Your task to perform on an android device: Open the Play Movies app and select the watchlist tab. Image 0: 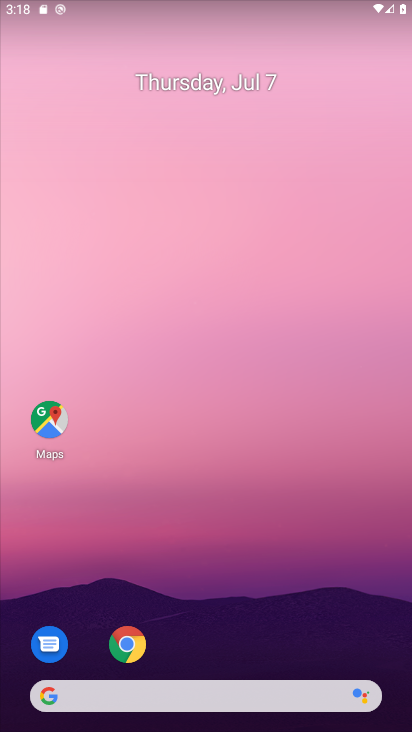
Step 0: drag from (224, 472) to (133, 2)
Your task to perform on an android device: Open the Play Movies app and select the watchlist tab. Image 1: 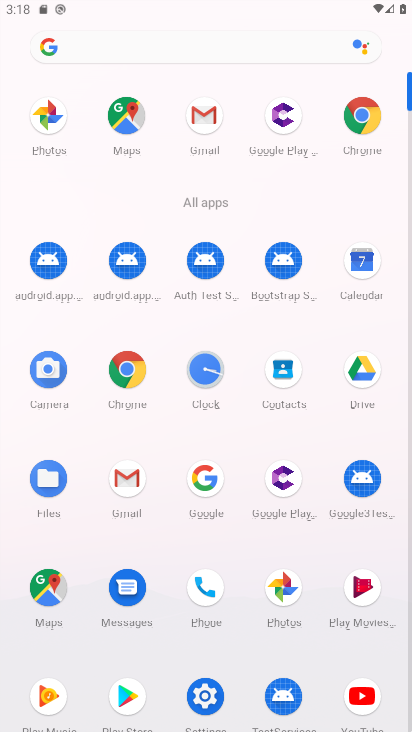
Step 1: click (360, 581)
Your task to perform on an android device: Open the Play Movies app and select the watchlist tab. Image 2: 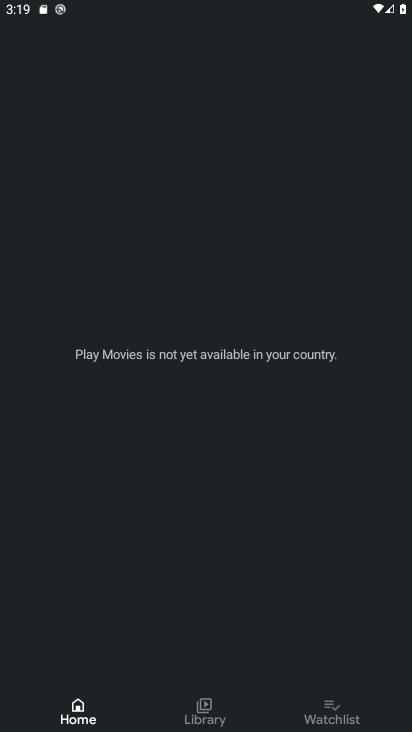
Step 2: click (332, 705)
Your task to perform on an android device: Open the Play Movies app and select the watchlist tab. Image 3: 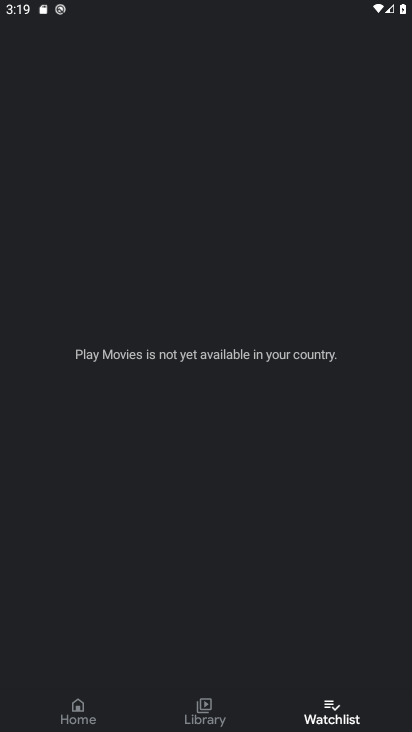
Step 3: task complete